Your task to perform on an android device: What is the news today? Image 0: 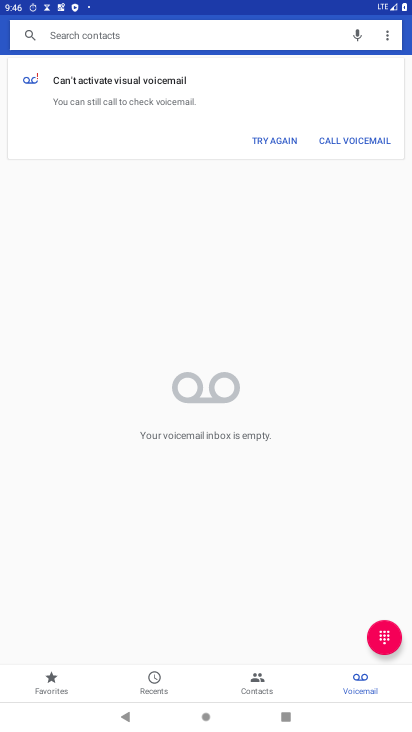
Step 0: press home button
Your task to perform on an android device: What is the news today? Image 1: 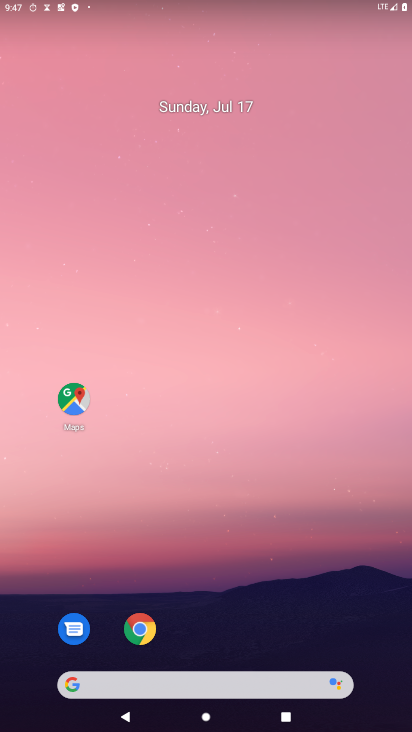
Step 1: drag from (231, 725) to (299, 122)
Your task to perform on an android device: What is the news today? Image 2: 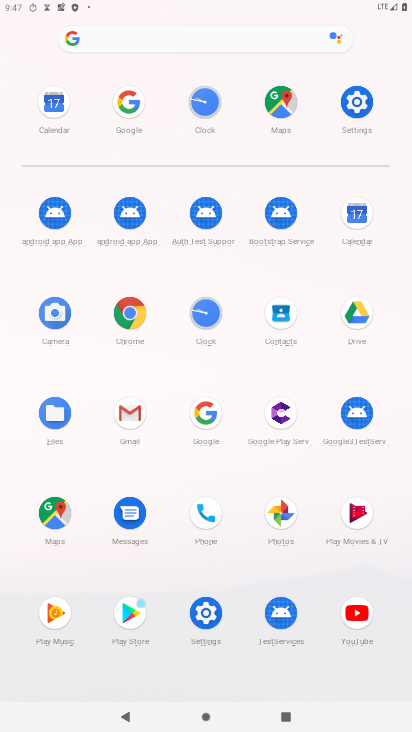
Step 2: click (211, 409)
Your task to perform on an android device: What is the news today? Image 3: 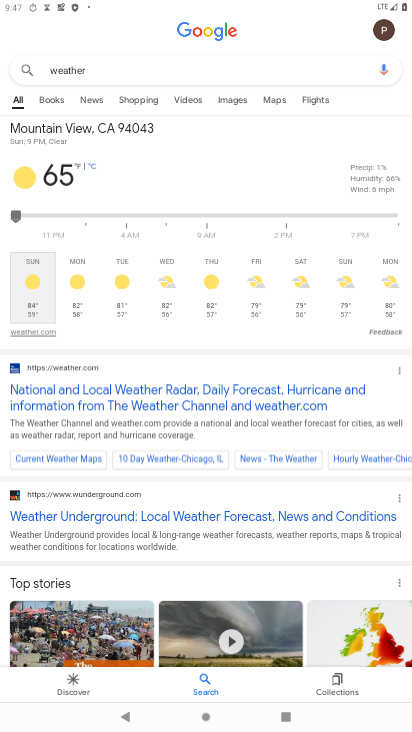
Step 3: click (73, 685)
Your task to perform on an android device: What is the news today? Image 4: 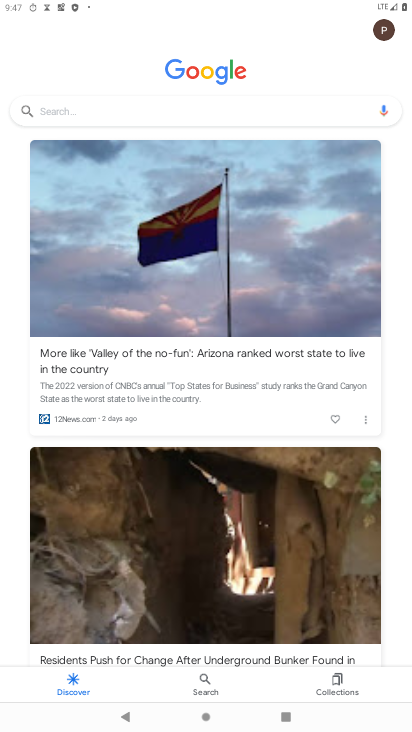
Step 4: task complete